Your task to perform on an android device: turn on translation in the chrome app Image 0: 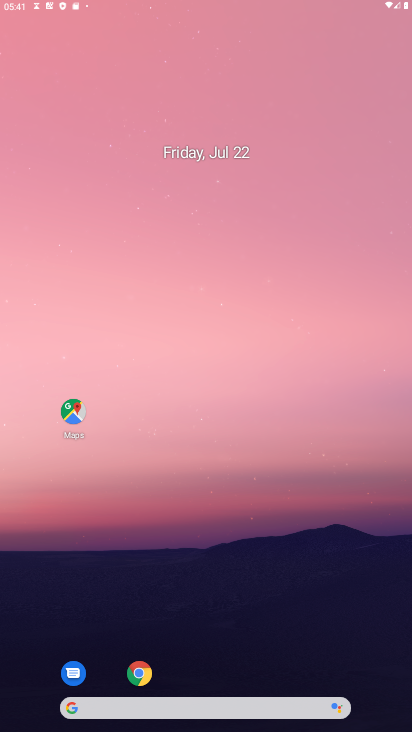
Step 0: press home button
Your task to perform on an android device: turn on translation in the chrome app Image 1: 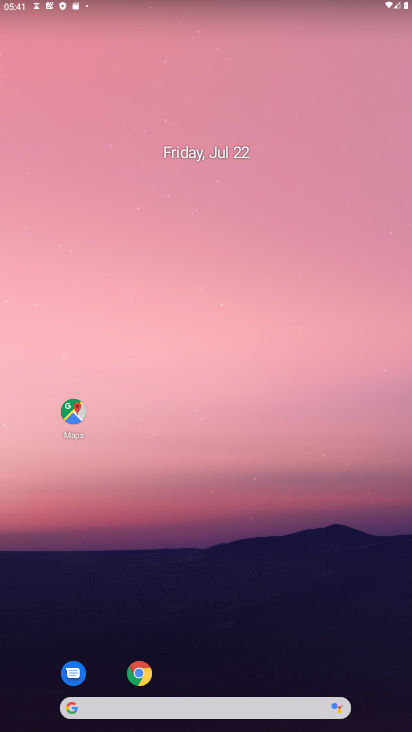
Step 1: drag from (229, 657) to (271, 3)
Your task to perform on an android device: turn on translation in the chrome app Image 2: 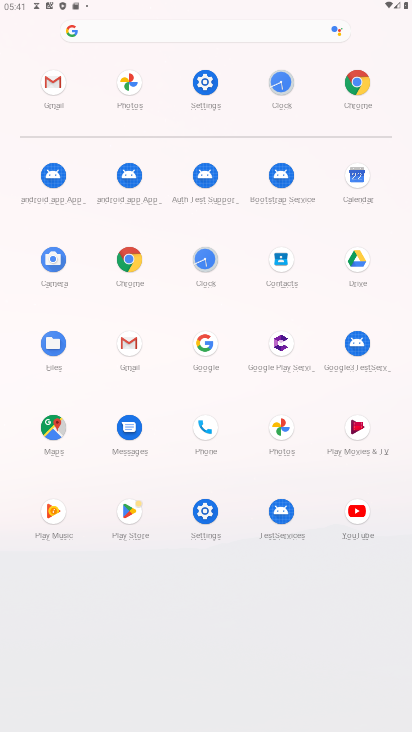
Step 2: click (119, 261)
Your task to perform on an android device: turn on translation in the chrome app Image 3: 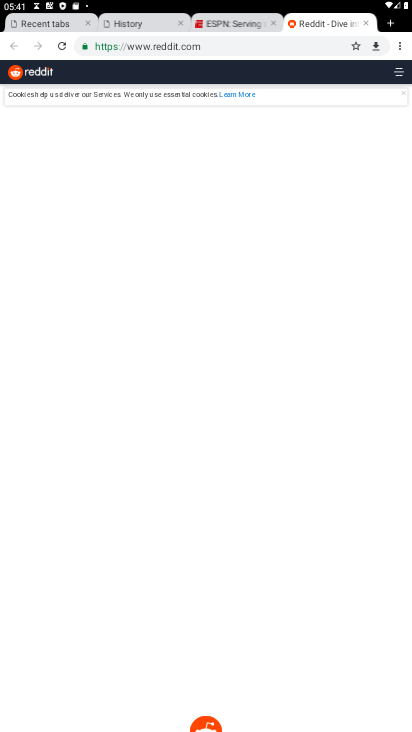
Step 3: drag from (404, 44) to (314, 314)
Your task to perform on an android device: turn on translation in the chrome app Image 4: 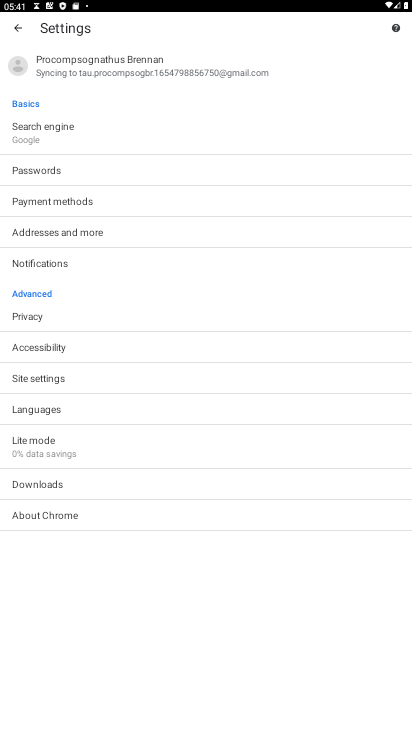
Step 4: click (55, 405)
Your task to perform on an android device: turn on translation in the chrome app Image 5: 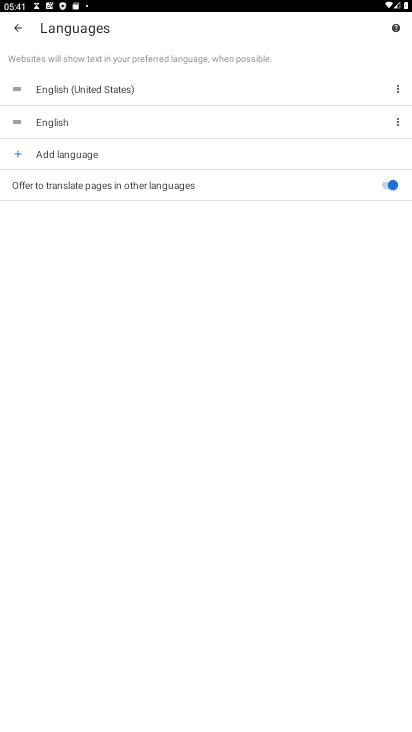
Step 5: task complete